Your task to perform on an android device: toggle sleep mode Image 0: 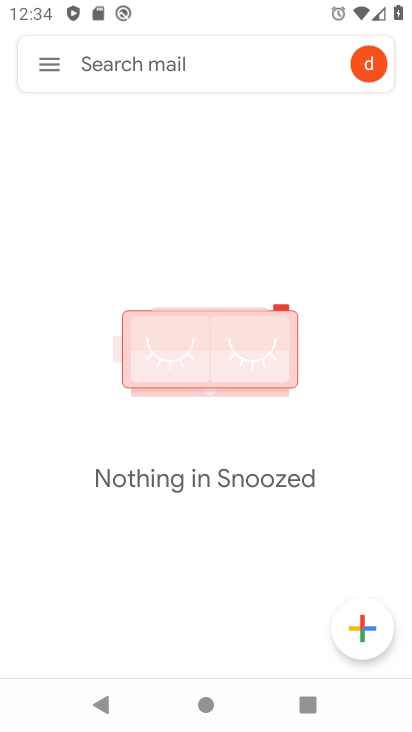
Step 0: press home button
Your task to perform on an android device: toggle sleep mode Image 1: 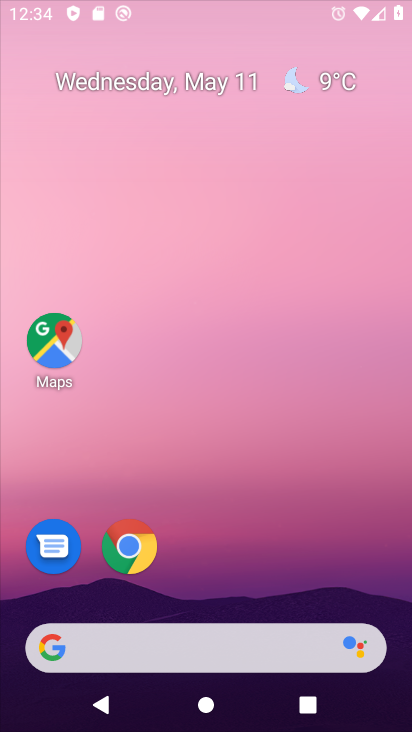
Step 1: drag from (211, 640) to (264, 316)
Your task to perform on an android device: toggle sleep mode Image 2: 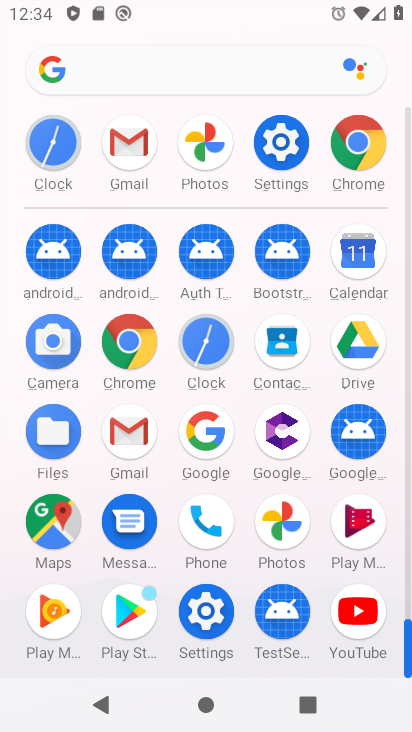
Step 2: click (280, 152)
Your task to perform on an android device: toggle sleep mode Image 3: 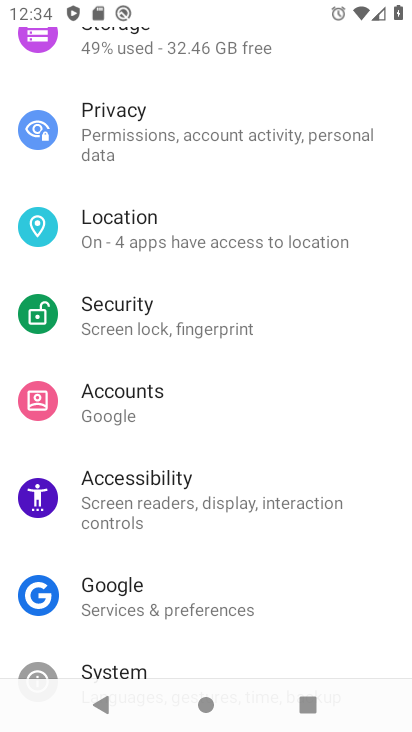
Step 3: drag from (207, 314) to (347, 731)
Your task to perform on an android device: toggle sleep mode Image 4: 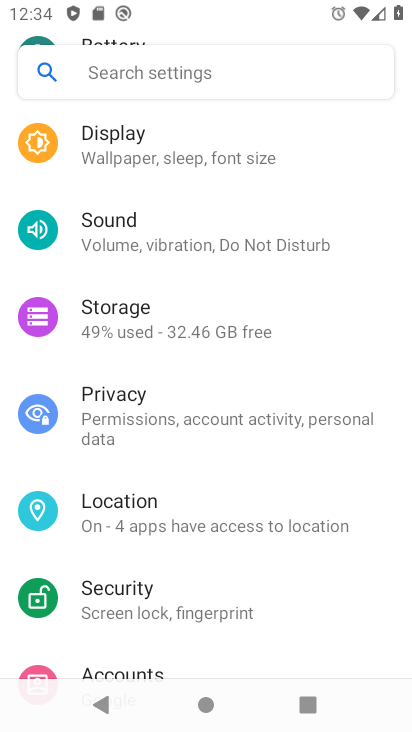
Step 4: drag from (172, 201) to (266, 682)
Your task to perform on an android device: toggle sleep mode Image 5: 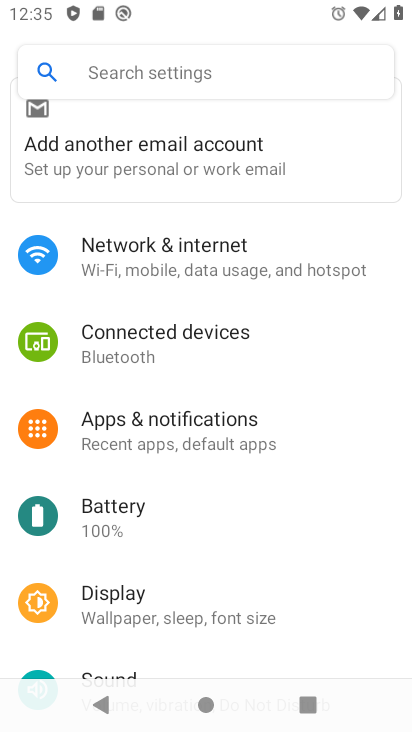
Step 5: drag from (229, 601) to (382, 147)
Your task to perform on an android device: toggle sleep mode Image 6: 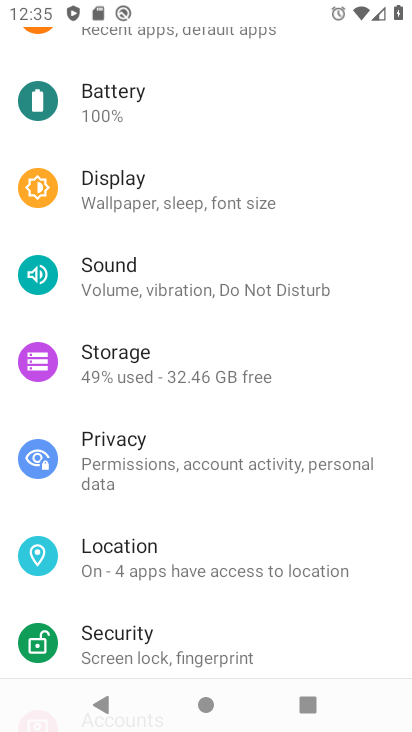
Step 6: click (145, 210)
Your task to perform on an android device: toggle sleep mode Image 7: 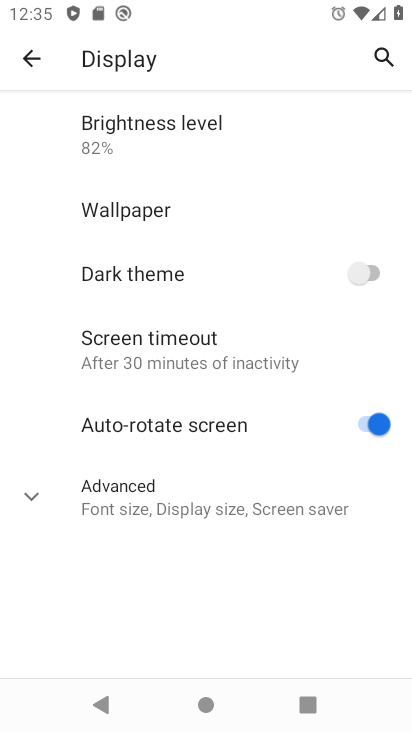
Step 7: click (222, 358)
Your task to perform on an android device: toggle sleep mode Image 8: 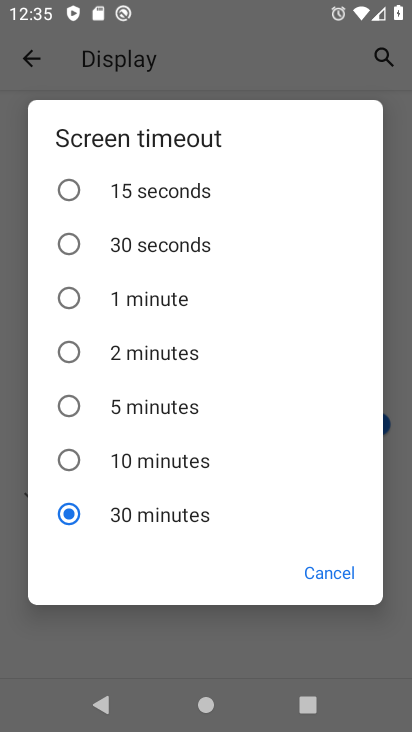
Step 8: task complete